Your task to perform on an android device: Go to display settings Image 0: 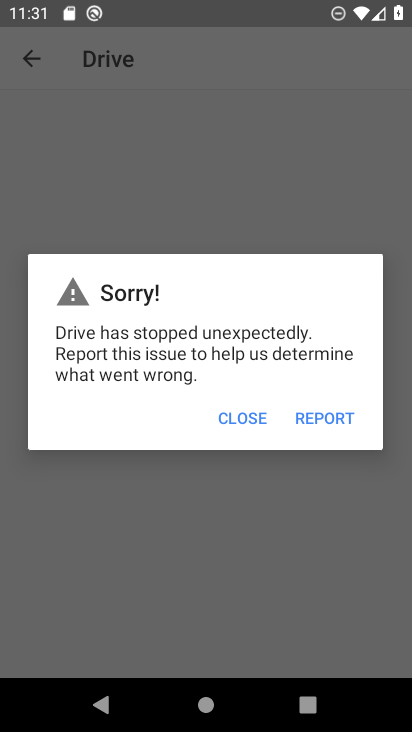
Step 0: press home button
Your task to perform on an android device: Go to display settings Image 1: 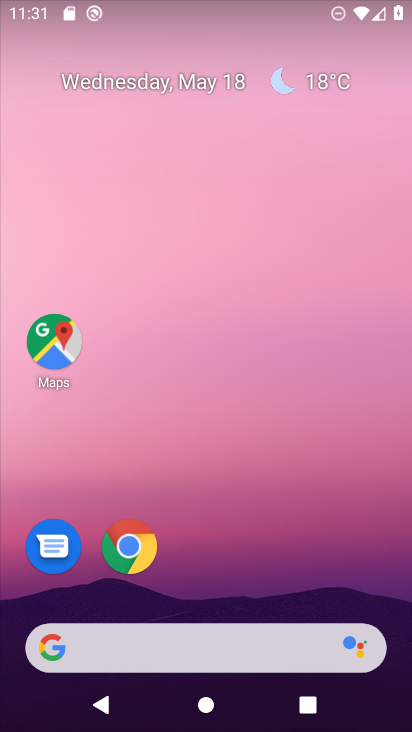
Step 1: drag from (237, 728) to (225, 101)
Your task to perform on an android device: Go to display settings Image 2: 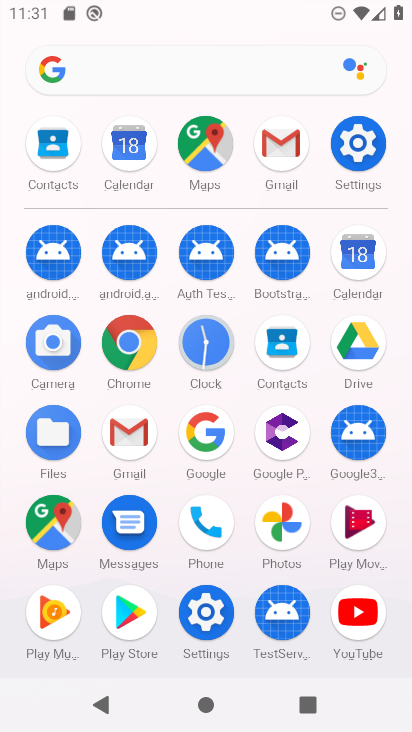
Step 2: click (354, 130)
Your task to perform on an android device: Go to display settings Image 3: 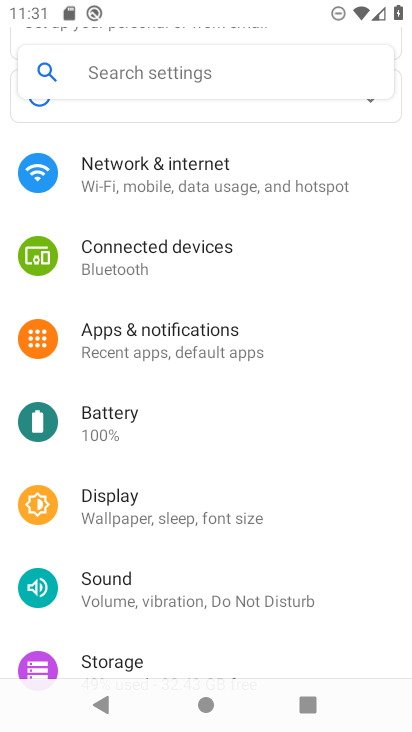
Step 3: click (150, 510)
Your task to perform on an android device: Go to display settings Image 4: 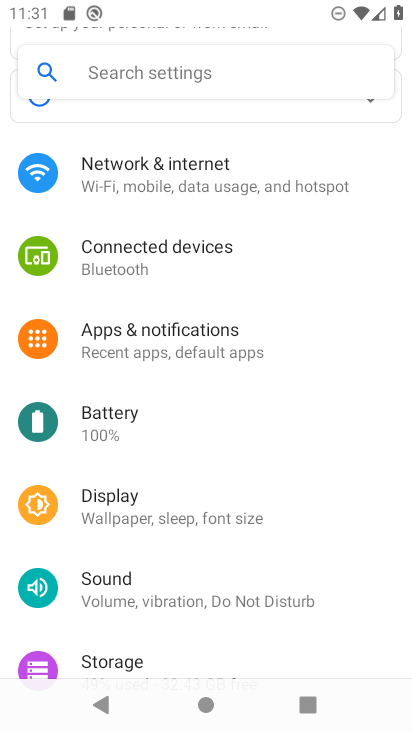
Step 4: click (132, 505)
Your task to perform on an android device: Go to display settings Image 5: 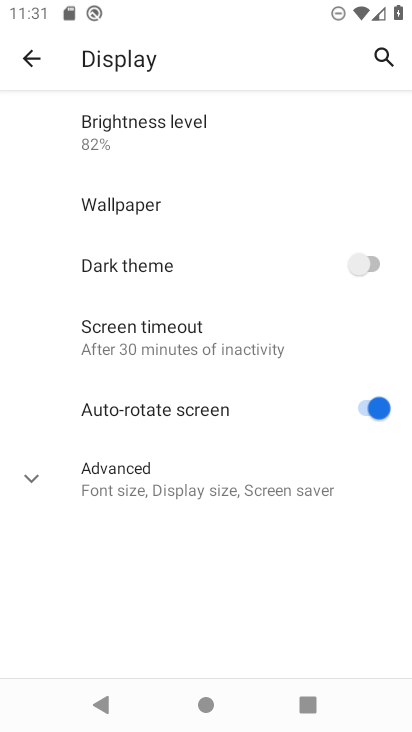
Step 5: task complete